Your task to perform on an android device: Go to internet settings Image 0: 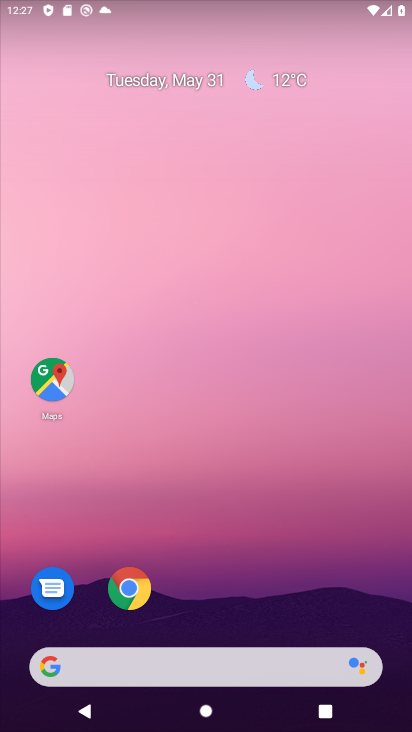
Step 0: drag from (397, 695) to (401, 203)
Your task to perform on an android device: Go to internet settings Image 1: 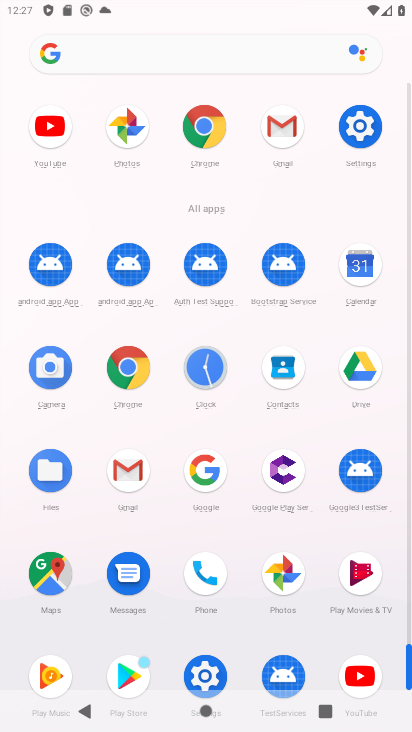
Step 1: click (348, 125)
Your task to perform on an android device: Go to internet settings Image 2: 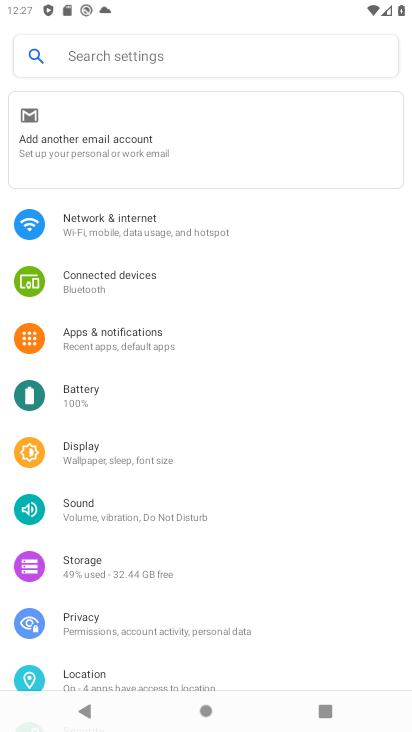
Step 2: click (100, 237)
Your task to perform on an android device: Go to internet settings Image 3: 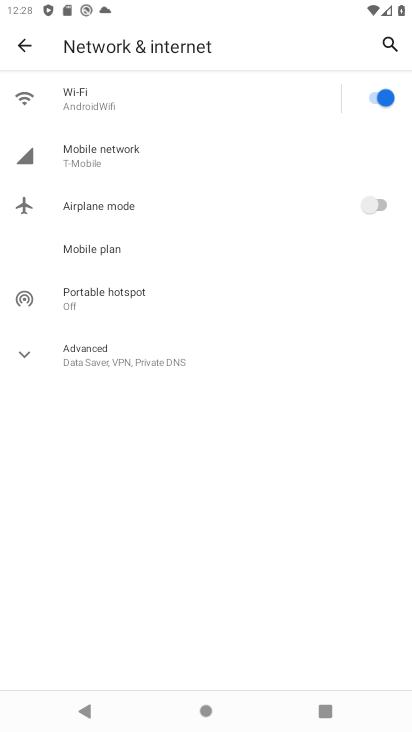
Step 3: task complete